Your task to perform on an android device: turn on sleep mode Image 0: 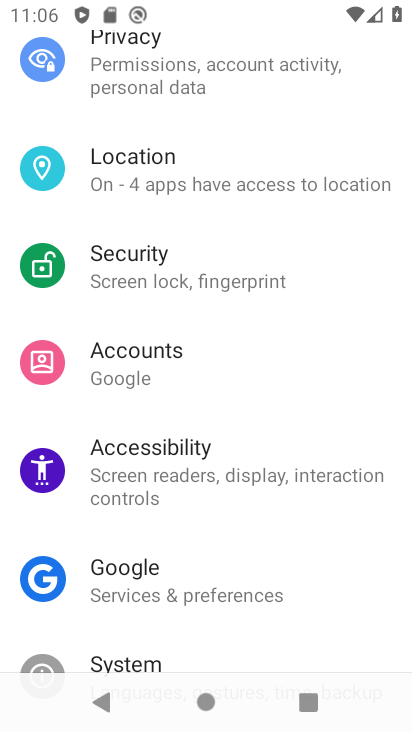
Step 0: drag from (237, 110) to (207, 498)
Your task to perform on an android device: turn on sleep mode Image 1: 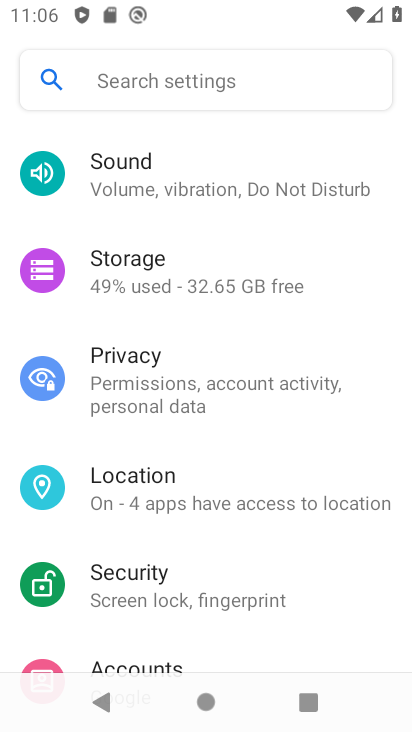
Step 1: task complete